Your task to perform on an android device: Open Yahoo.com Image 0: 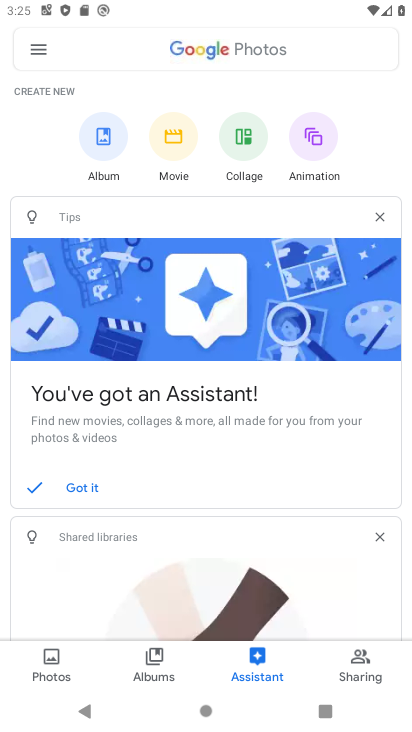
Step 0: press home button
Your task to perform on an android device: Open Yahoo.com Image 1: 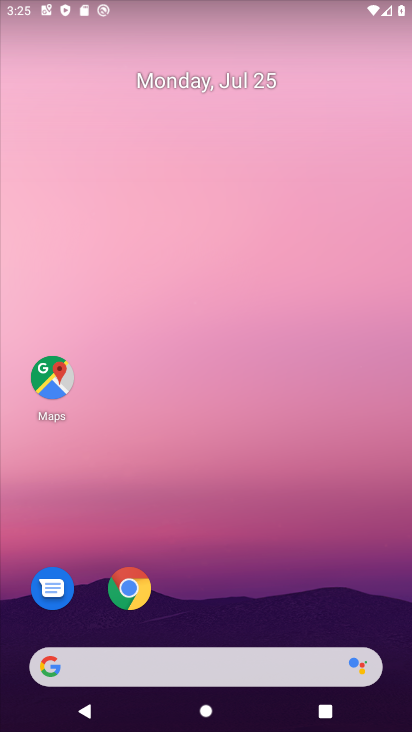
Step 1: click (130, 581)
Your task to perform on an android device: Open Yahoo.com Image 2: 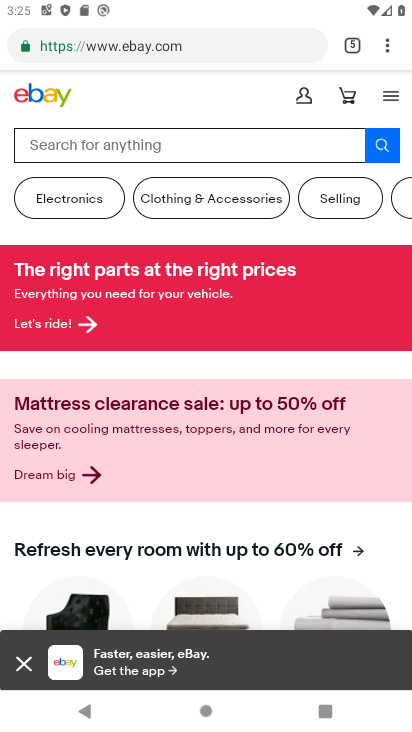
Step 2: click (349, 42)
Your task to perform on an android device: Open Yahoo.com Image 3: 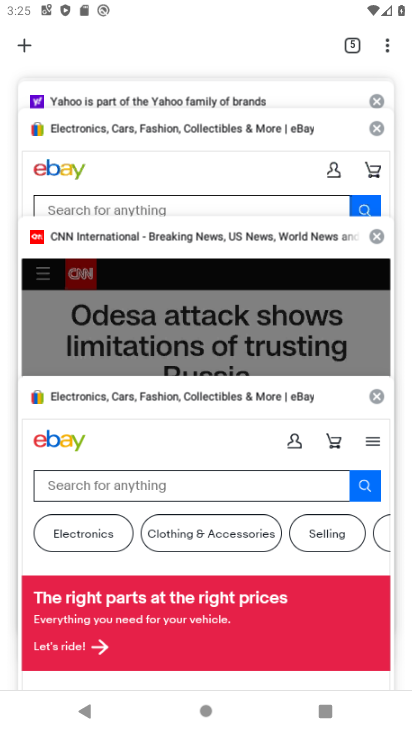
Step 3: click (58, 96)
Your task to perform on an android device: Open Yahoo.com Image 4: 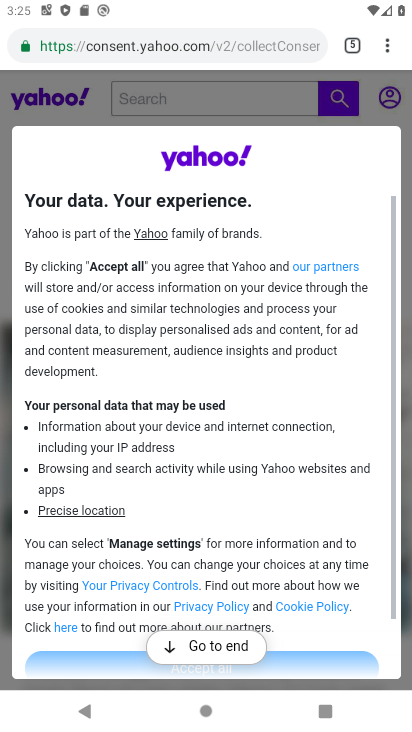
Step 4: task complete